Your task to perform on an android device: show emergency info Image 0: 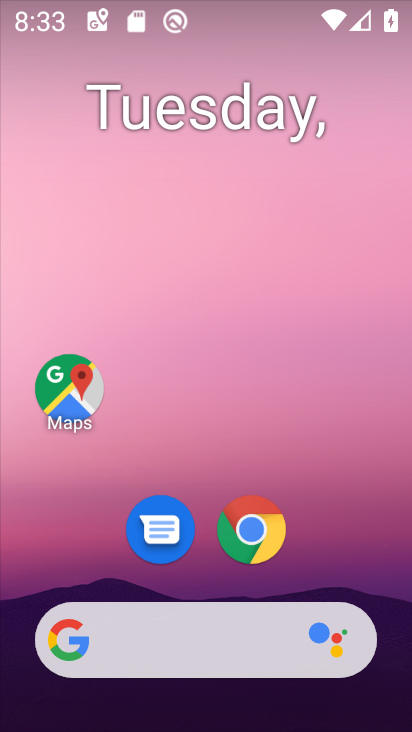
Step 0: drag from (217, 468) to (254, 41)
Your task to perform on an android device: show emergency info Image 1: 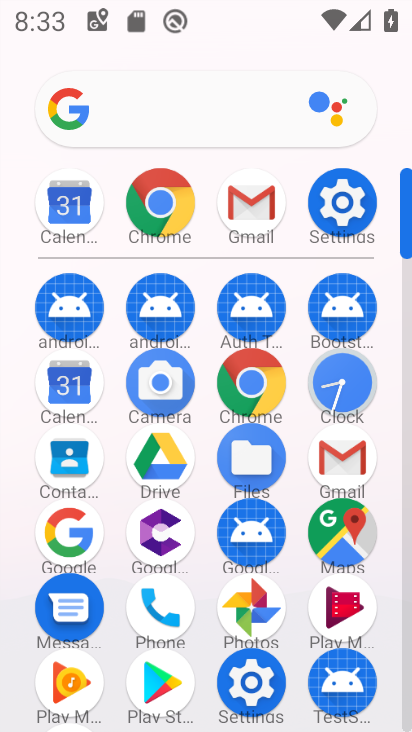
Step 1: click (330, 195)
Your task to perform on an android device: show emergency info Image 2: 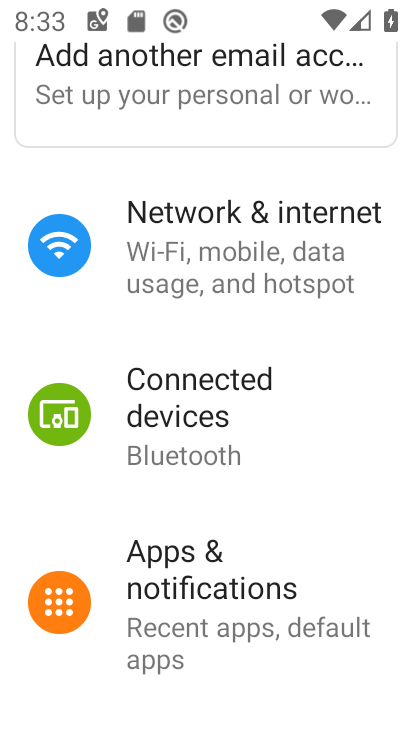
Step 2: drag from (230, 651) to (301, 55)
Your task to perform on an android device: show emergency info Image 3: 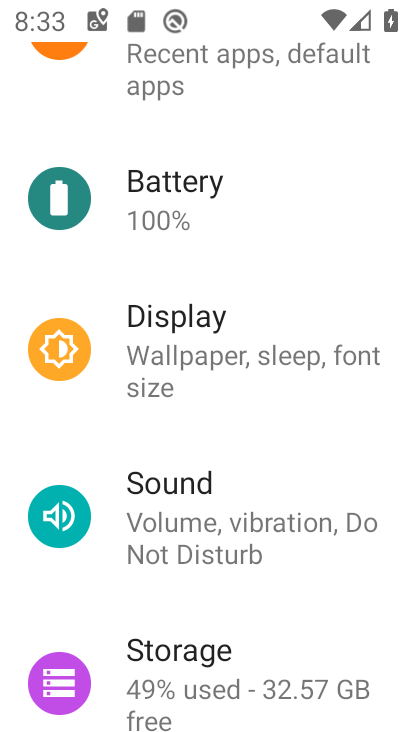
Step 3: drag from (195, 691) to (298, 25)
Your task to perform on an android device: show emergency info Image 4: 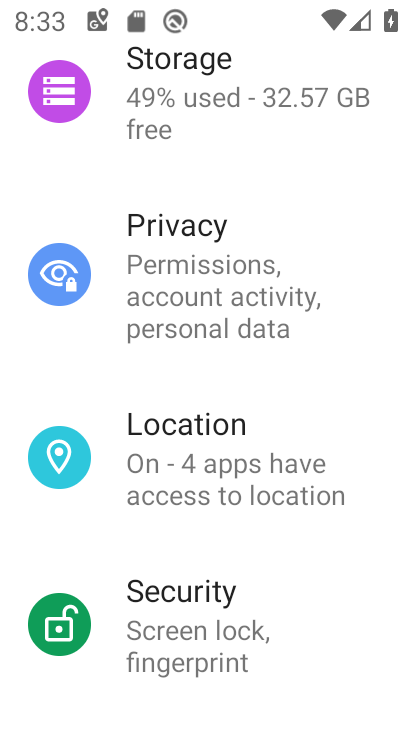
Step 4: drag from (205, 651) to (251, 55)
Your task to perform on an android device: show emergency info Image 5: 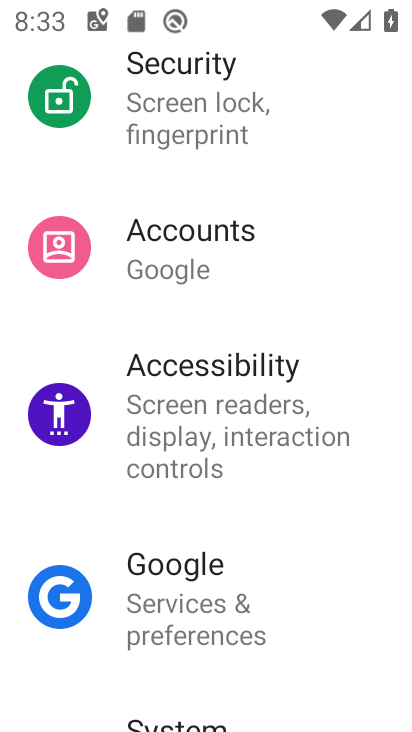
Step 5: drag from (216, 587) to (278, 96)
Your task to perform on an android device: show emergency info Image 6: 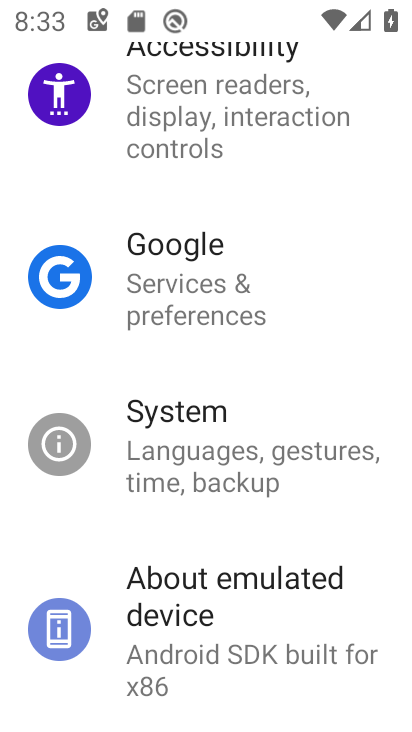
Step 6: click (183, 609)
Your task to perform on an android device: show emergency info Image 7: 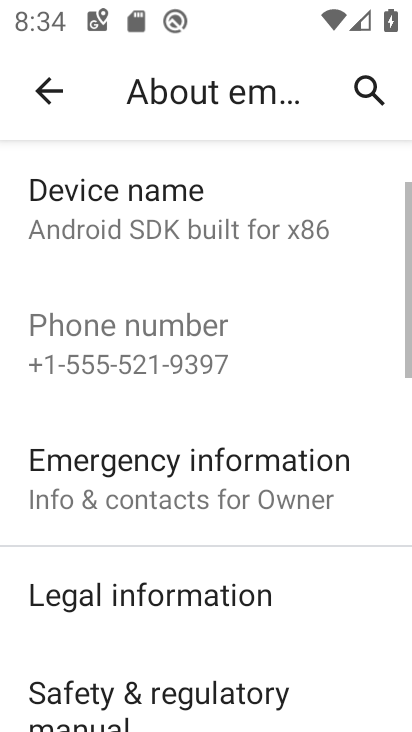
Step 7: click (149, 472)
Your task to perform on an android device: show emergency info Image 8: 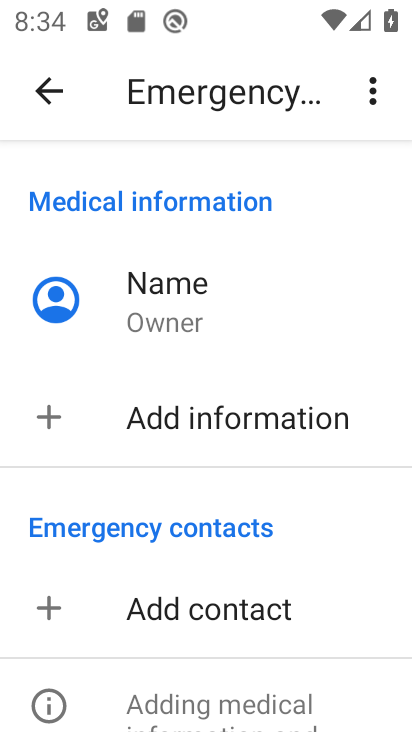
Step 8: task complete